Your task to perform on an android device: change timer sound Image 0: 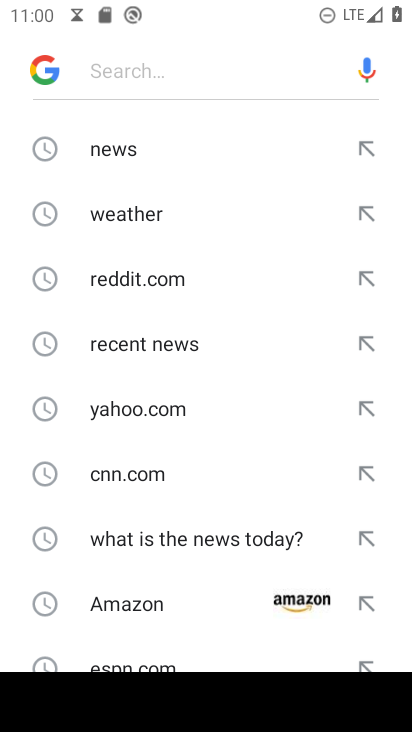
Step 0: press home button
Your task to perform on an android device: change timer sound Image 1: 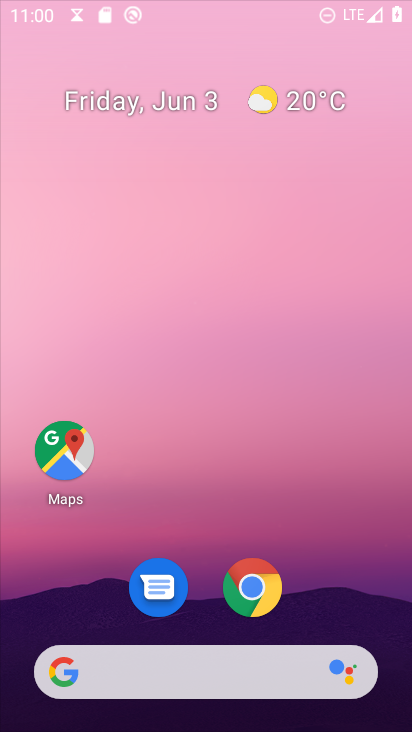
Step 1: drag from (343, 569) to (202, 1)
Your task to perform on an android device: change timer sound Image 2: 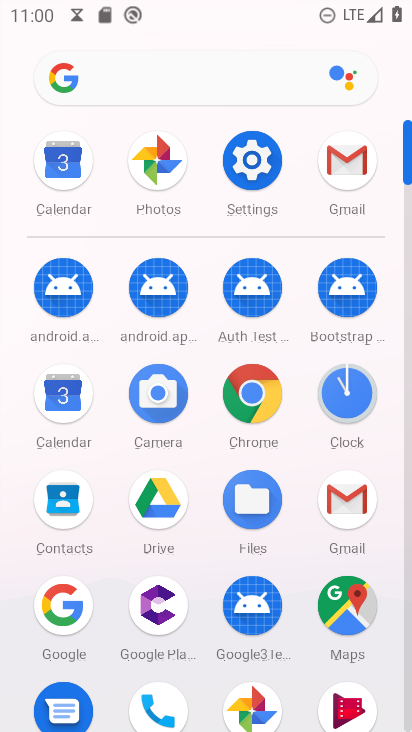
Step 2: click (355, 365)
Your task to perform on an android device: change timer sound Image 3: 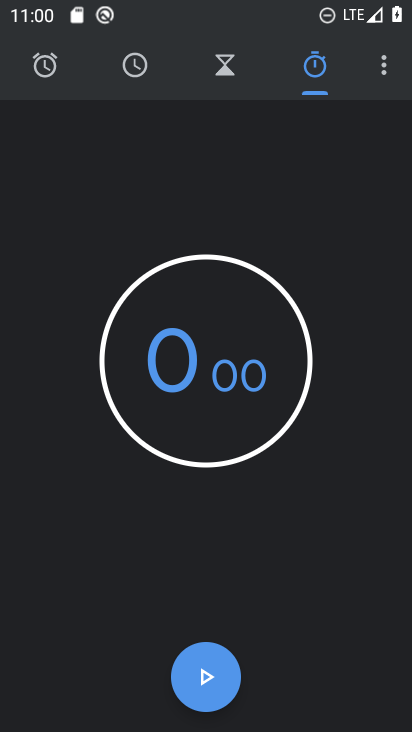
Step 3: click (385, 61)
Your task to perform on an android device: change timer sound Image 4: 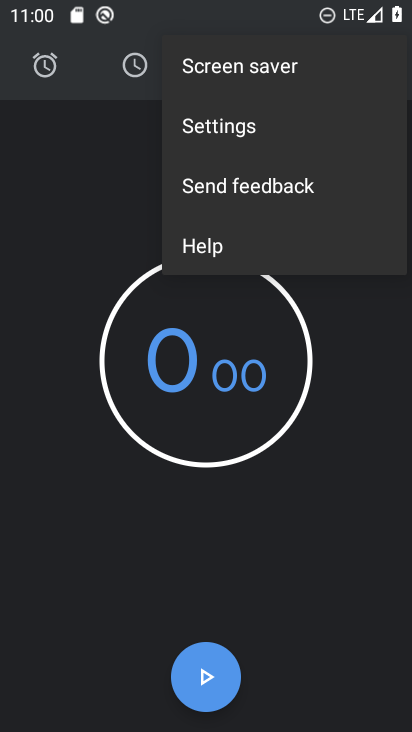
Step 4: click (295, 133)
Your task to perform on an android device: change timer sound Image 5: 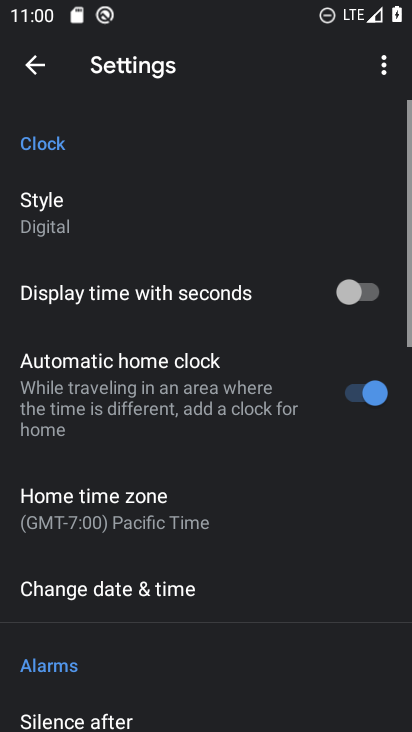
Step 5: drag from (267, 620) to (187, 11)
Your task to perform on an android device: change timer sound Image 6: 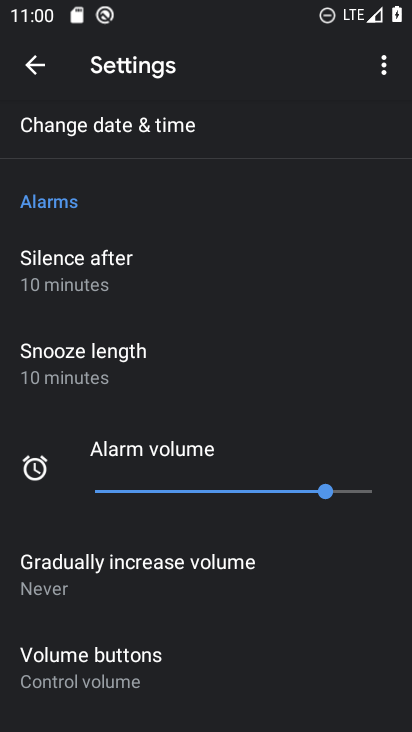
Step 6: drag from (276, 557) to (196, 48)
Your task to perform on an android device: change timer sound Image 7: 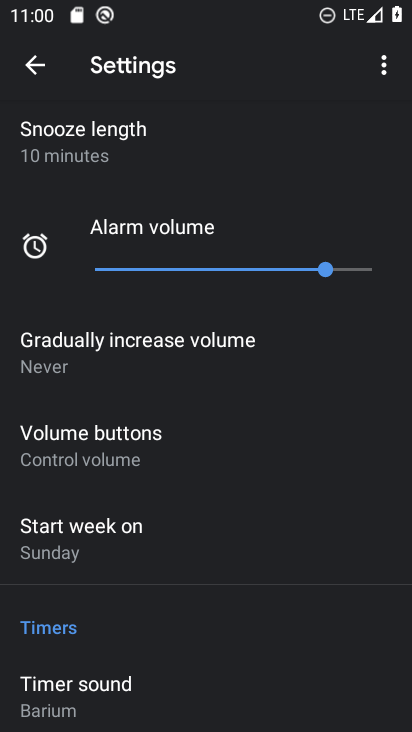
Step 7: click (246, 685)
Your task to perform on an android device: change timer sound Image 8: 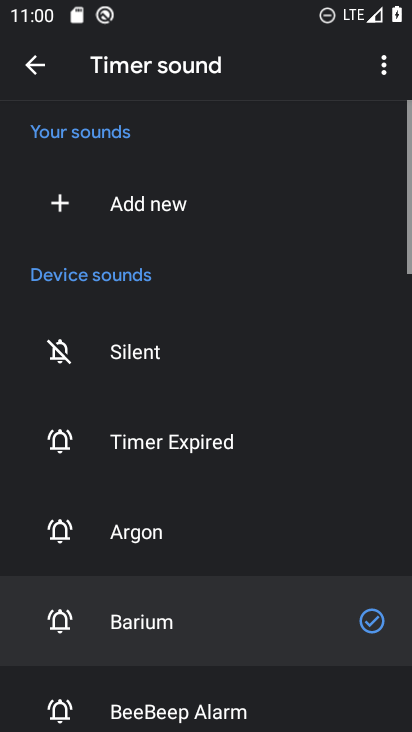
Step 8: click (271, 692)
Your task to perform on an android device: change timer sound Image 9: 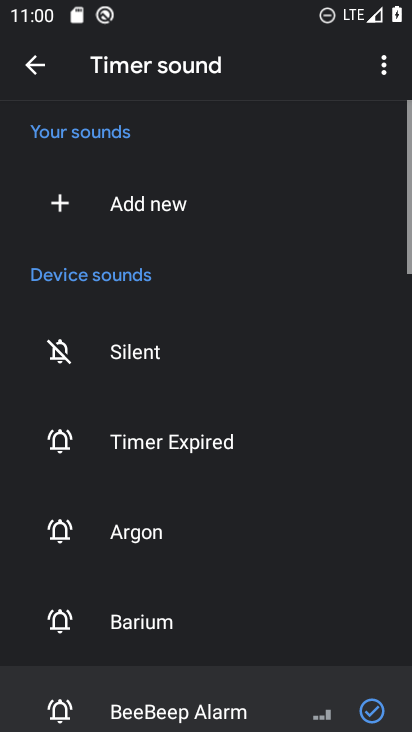
Step 9: task complete